Your task to perform on an android device: Go to Android settings Image 0: 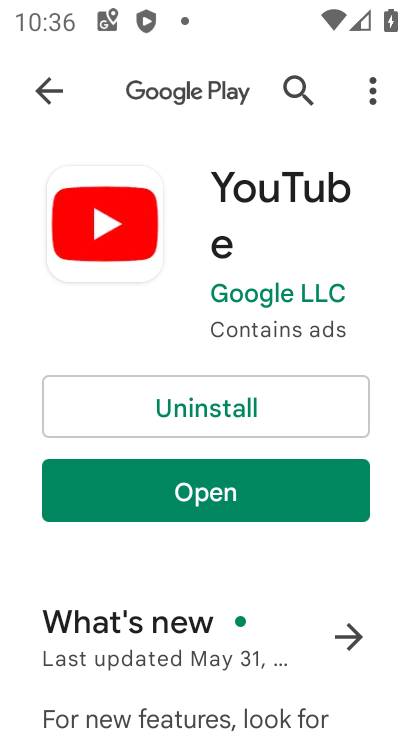
Step 0: press home button
Your task to perform on an android device: Go to Android settings Image 1: 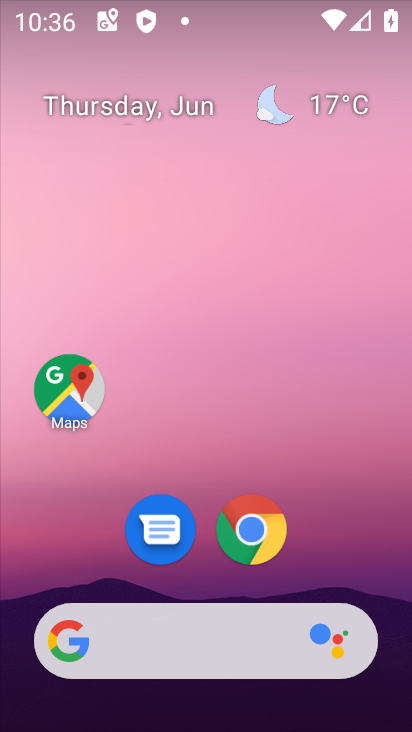
Step 1: drag from (294, 571) to (309, 100)
Your task to perform on an android device: Go to Android settings Image 2: 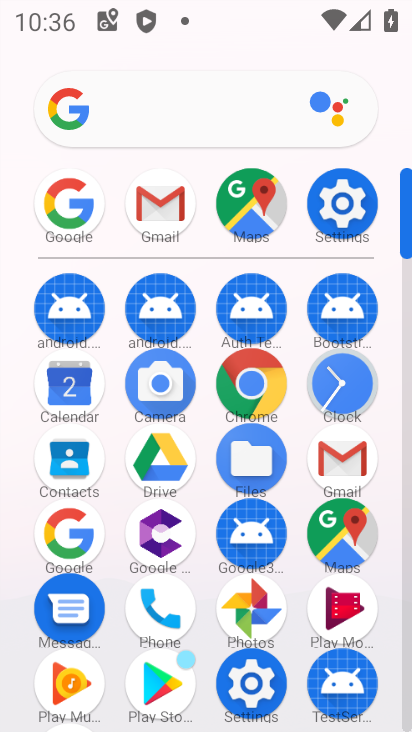
Step 2: click (331, 187)
Your task to perform on an android device: Go to Android settings Image 3: 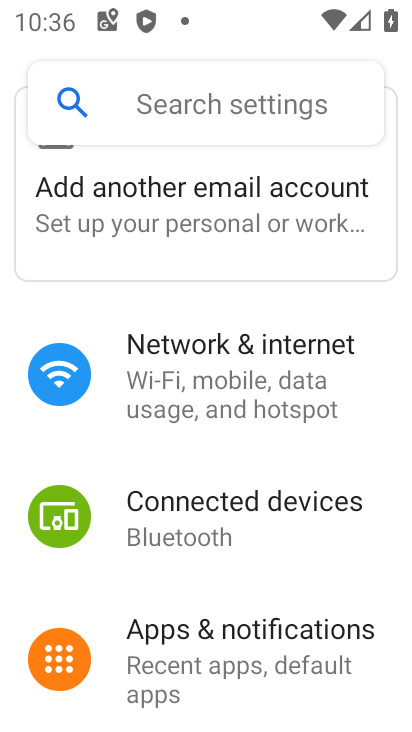
Step 3: drag from (215, 593) to (254, 203)
Your task to perform on an android device: Go to Android settings Image 4: 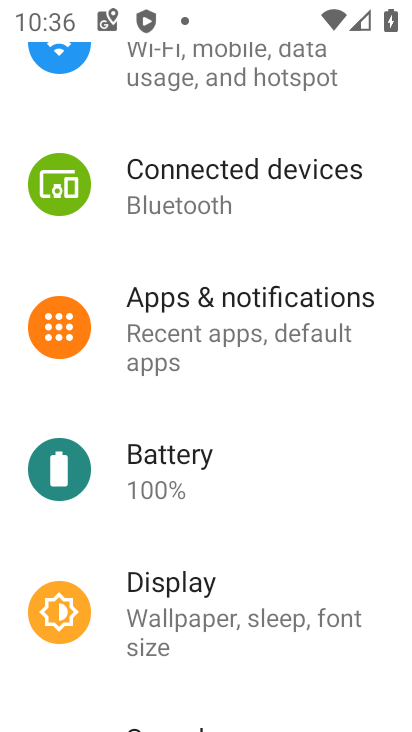
Step 4: drag from (300, 622) to (290, 335)
Your task to perform on an android device: Go to Android settings Image 5: 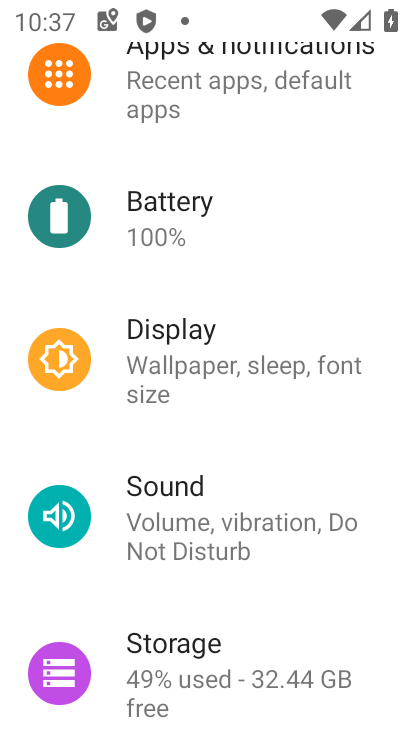
Step 5: drag from (329, 643) to (352, 262)
Your task to perform on an android device: Go to Android settings Image 6: 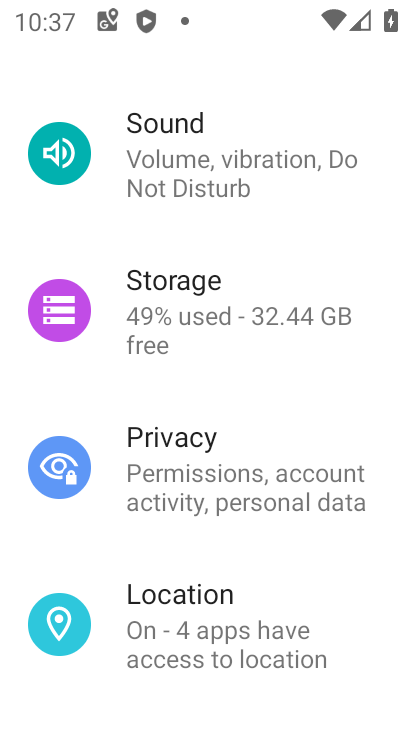
Step 6: drag from (312, 699) to (299, 223)
Your task to perform on an android device: Go to Android settings Image 7: 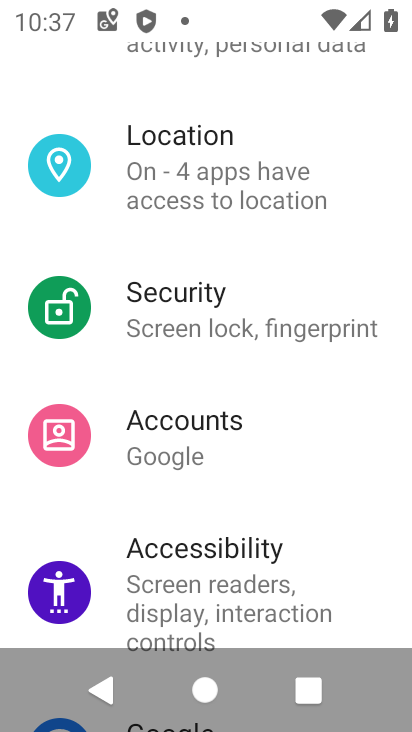
Step 7: drag from (168, 578) to (225, 178)
Your task to perform on an android device: Go to Android settings Image 8: 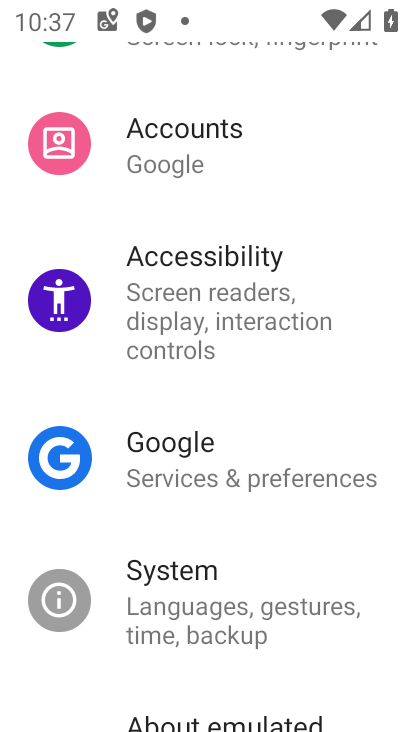
Step 8: click (129, 623)
Your task to perform on an android device: Go to Android settings Image 9: 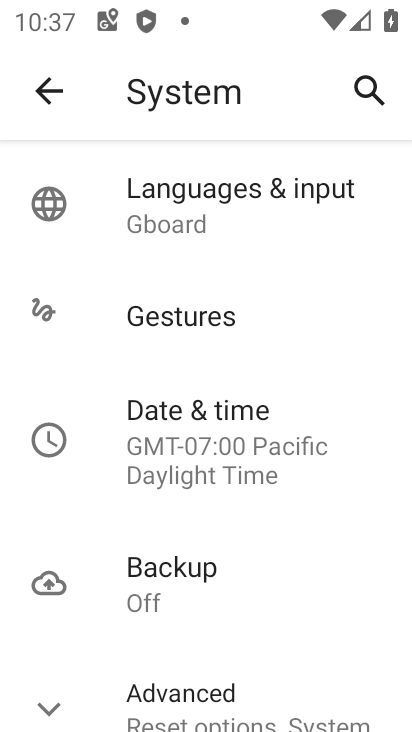
Step 9: task complete